Your task to perform on an android device: Open Amazon Image 0: 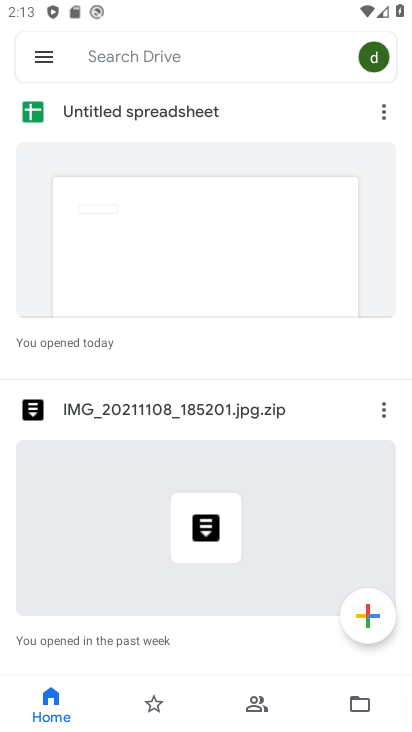
Step 0: press home button
Your task to perform on an android device: Open Amazon Image 1: 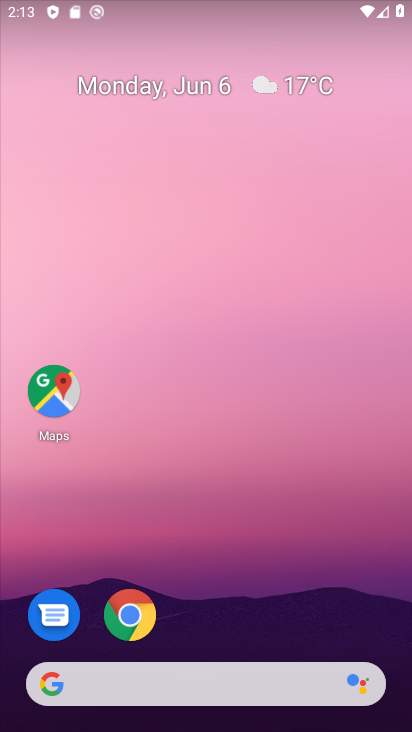
Step 1: click (125, 613)
Your task to perform on an android device: Open Amazon Image 2: 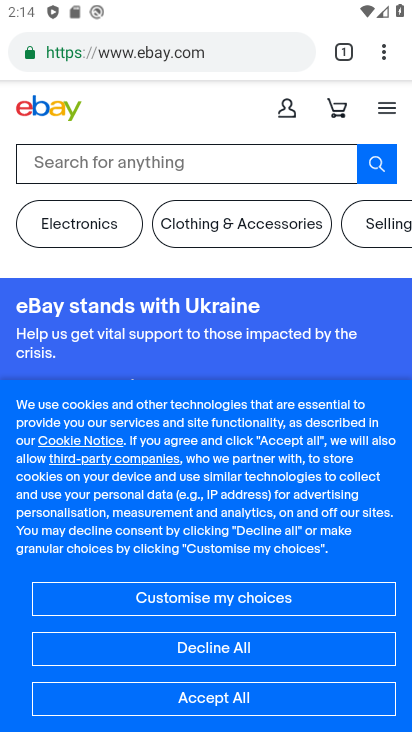
Step 2: click (182, 52)
Your task to perform on an android device: Open Amazon Image 3: 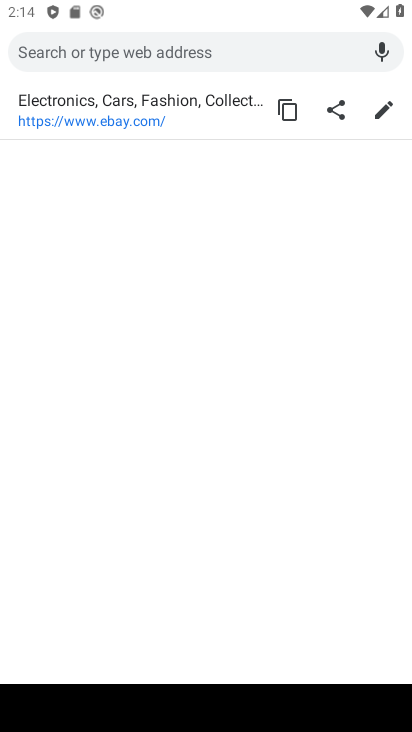
Step 3: type "Amazon"
Your task to perform on an android device: Open Amazon Image 4: 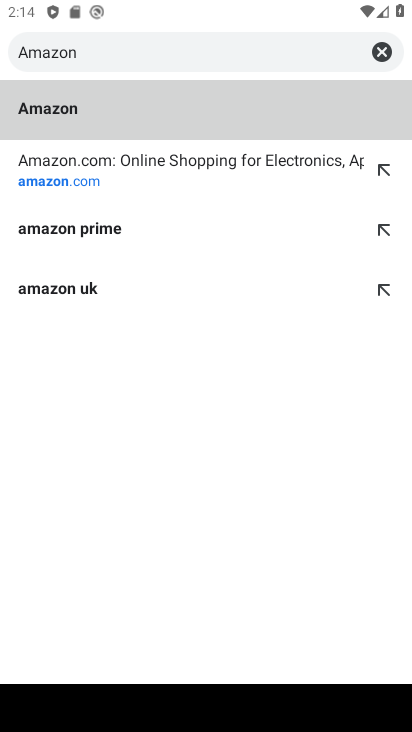
Step 4: click (45, 105)
Your task to perform on an android device: Open Amazon Image 5: 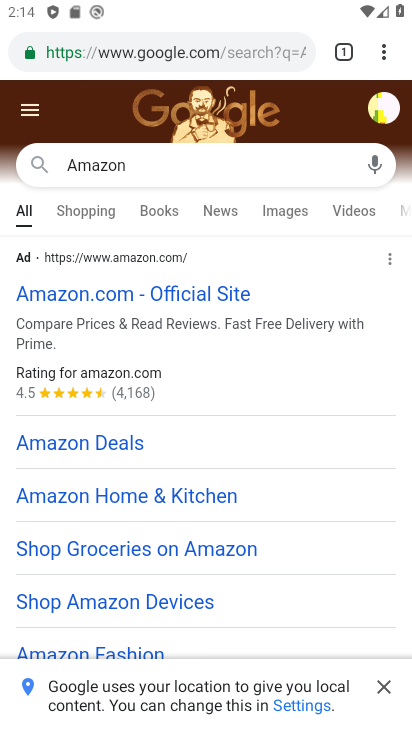
Step 5: click (123, 291)
Your task to perform on an android device: Open Amazon Image 6: 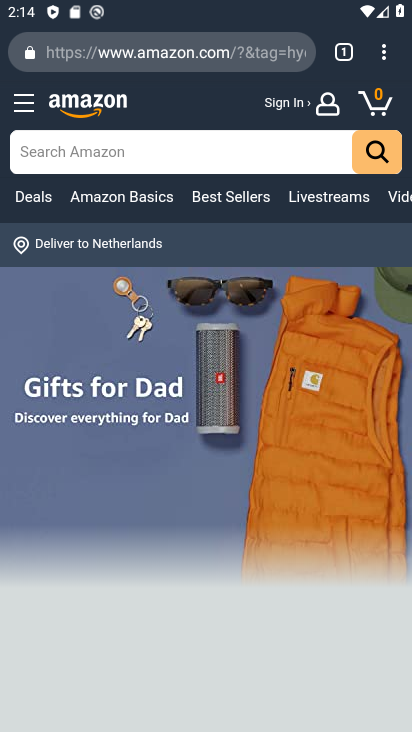
Step 6: task complete